Your task to perform on an android device: Do I have any events today? Image 0: 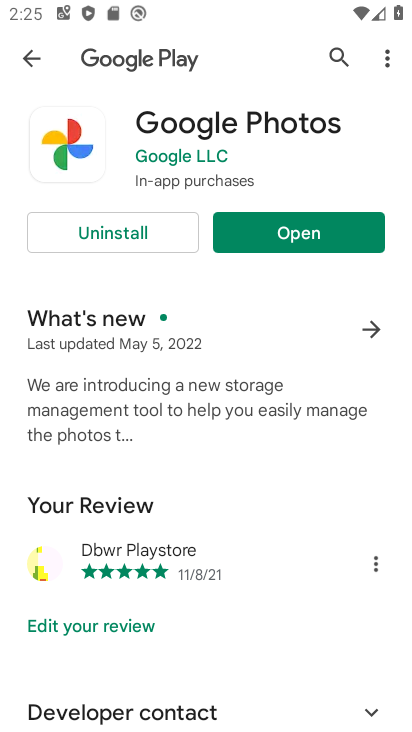
Step 0: drag from (273, 564) to (272, 403)
Your task to perform on an android device: Do I have any events today? Image 1: 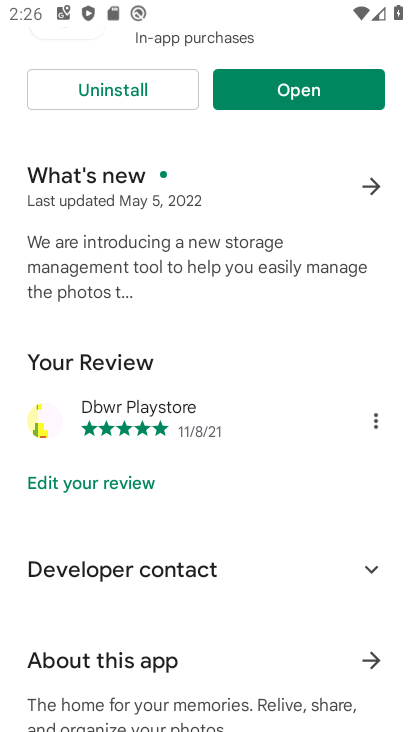
Step 1: press back button
Your task to perform on an android device: Do I have any events today? Image 2: 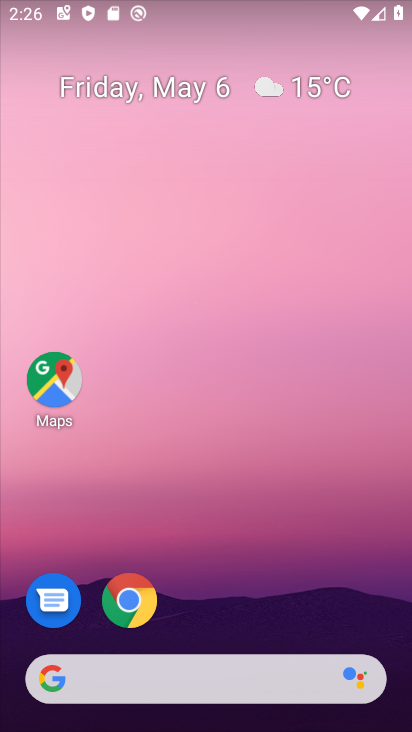
Step 2: drag from (253, 544) to (229, 9)
Your task to perform on an android device: Do I have any events today? Image 3: 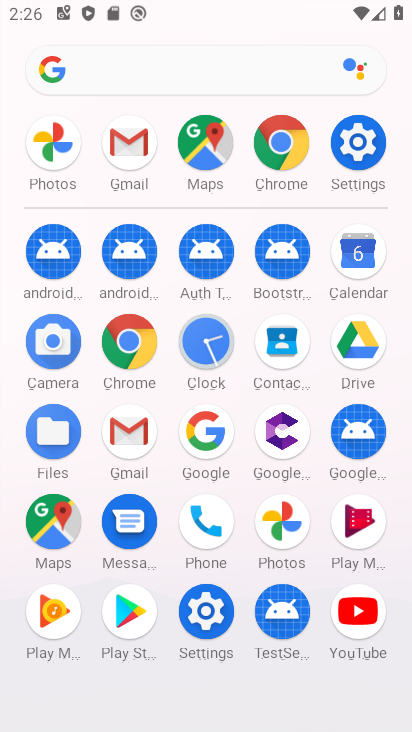
Step 3: drag from (8, 483) to (8, 212)
Your task to perform on an android device: Do I have any events today? Image 4: 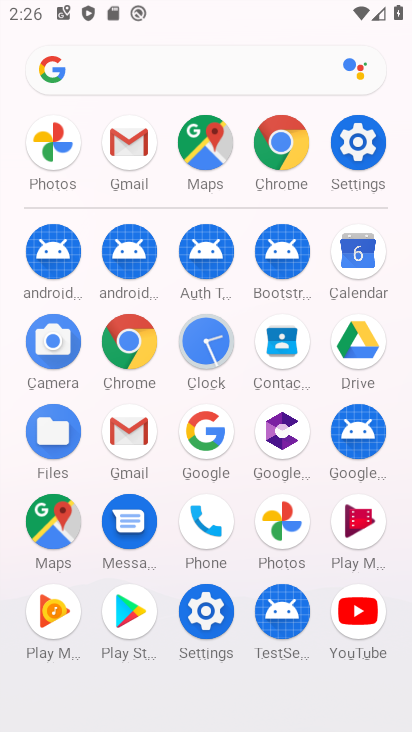
Step 4: click (360, 242)
Your task to perform on an android device: Do I have any events today? Image 5: 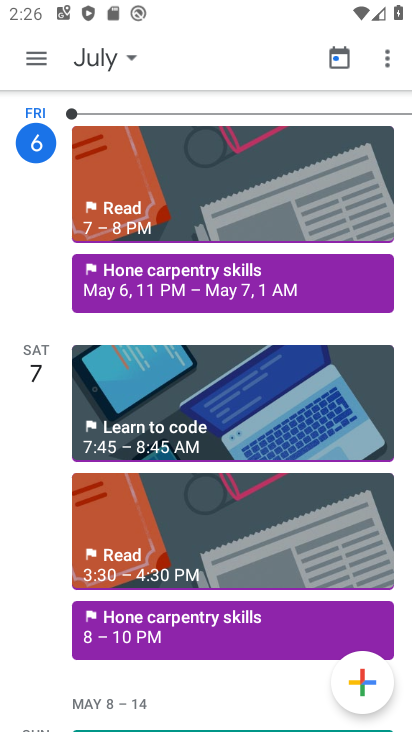
Step 5: click (333, 58)
Your task to perform on an android device: Do I have any events today? Image 6: 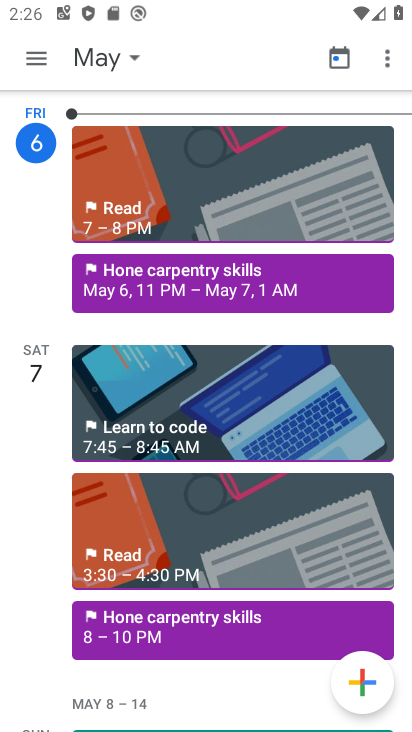
Step 6: click (30, 65)
Your task to perform on an android device: Do I have any events today? Image 7: 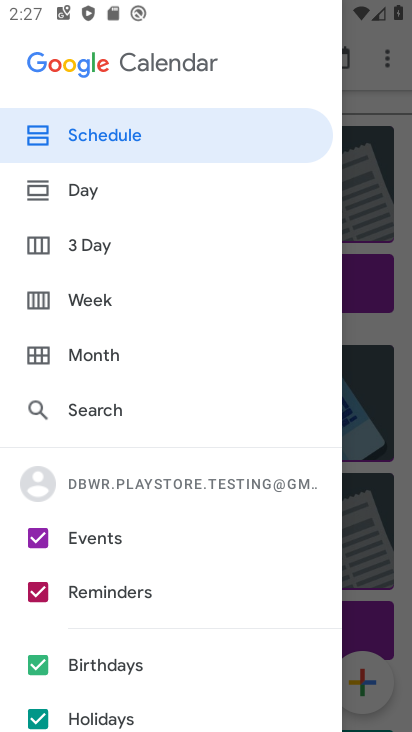
Step 7: click (103, 187)
Your task to perform on an android device: Do I have any events today? Image 8: 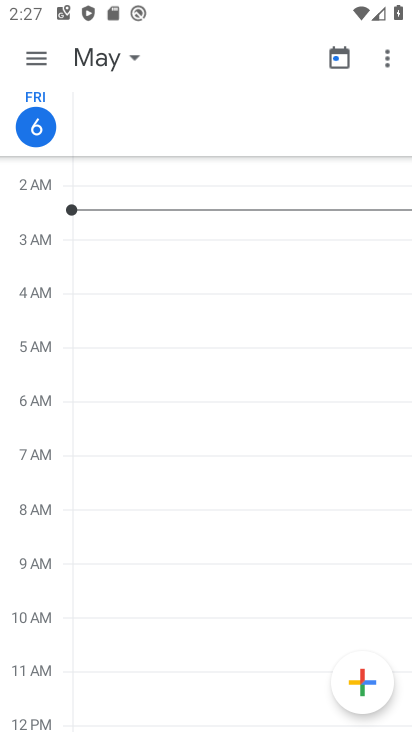
Step 8: task complete